Your task to perform on an android device: search for starred emails in the gmail app Image 0: 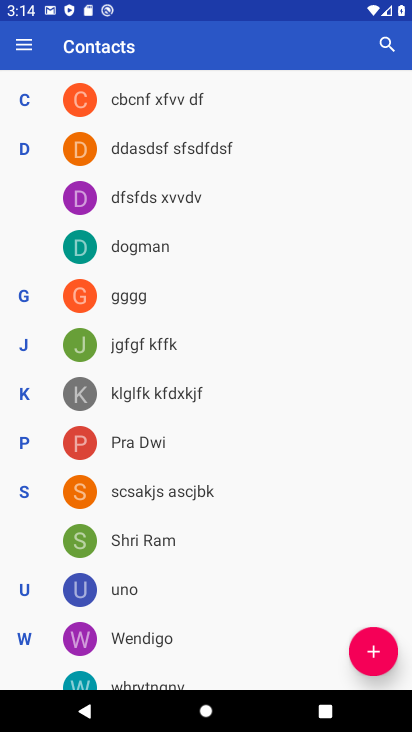
Step 0: press home button
Your task to perform on an android device: search for starred emails in the gmail app Image 1: 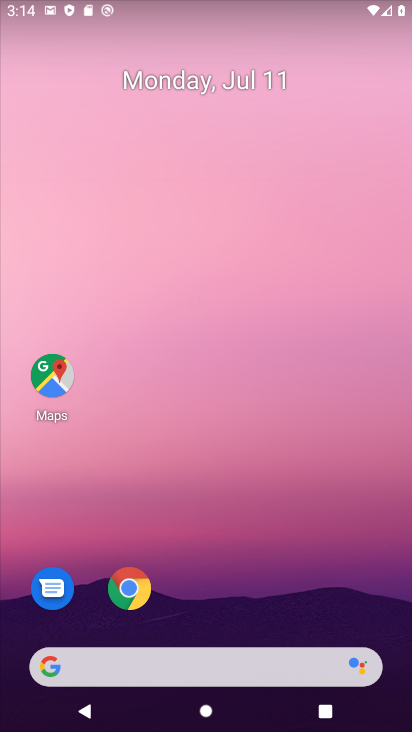
Step 1: drag from (258, 507) to (103, 12)
Your task to perform on an android device: search for starred emails in the gmail app Image 2: 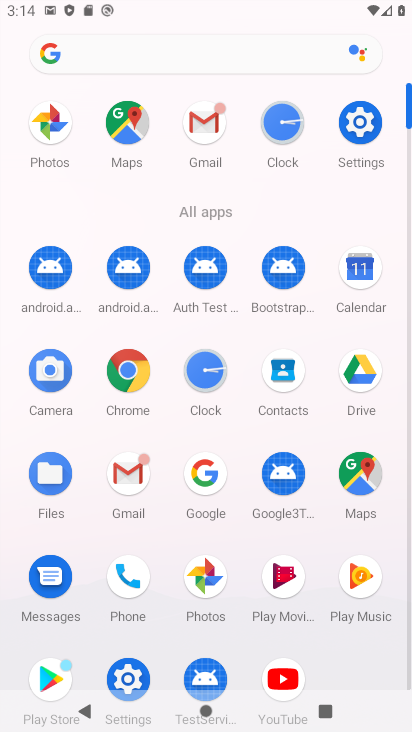
Step 2: click (204, 116)
Your task to perform on an android device: search for starred emails in the gmail app Image 3: 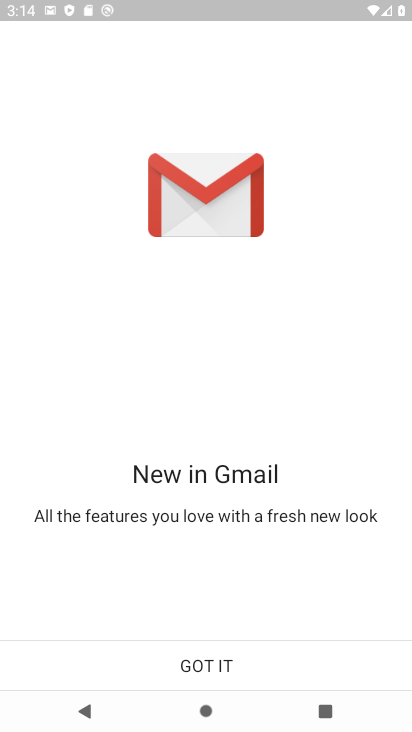
Step 3: click (255, 659)
Your task to perform on an android device: search for starred emails in the gmail app Image 4: 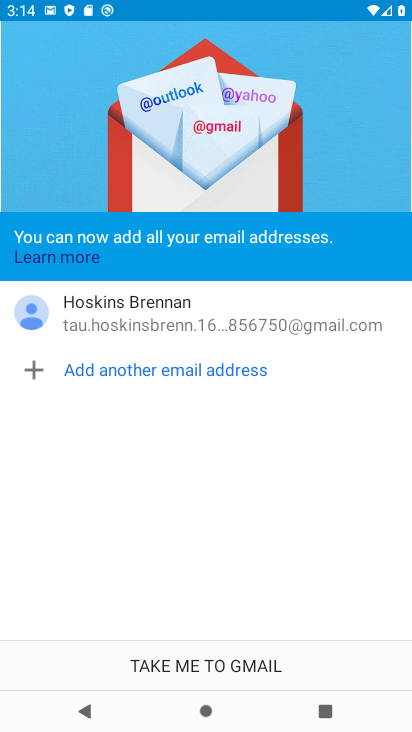
Step 4: click (268, 666)
Your task to perform on an android device: search for starred emails in the gmail app Image 5: 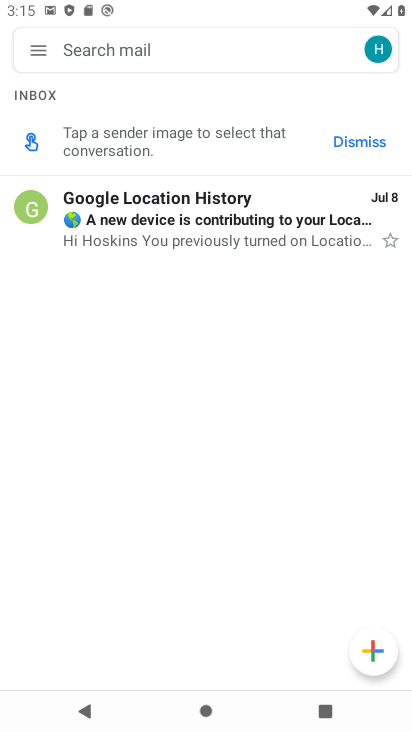
Step 5: click (32, 39)
Your task to perform on an android device: search for starred emails in the gmail app Image 6: 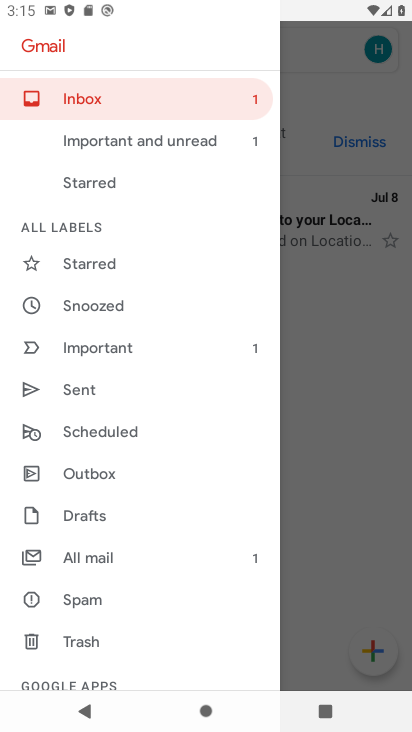
Step 6: click (157, 179)
Your task to perform on an android device: search for starred emails in the gmail app Image 7: 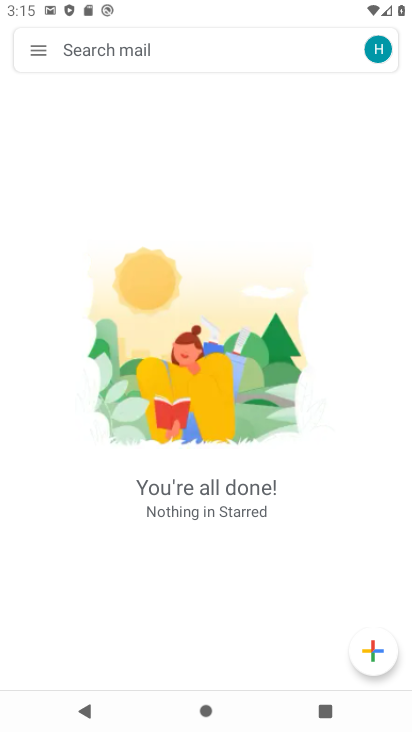
Step 7: task complete